Your task to perform on an android device: What's the weather today? Image 0: 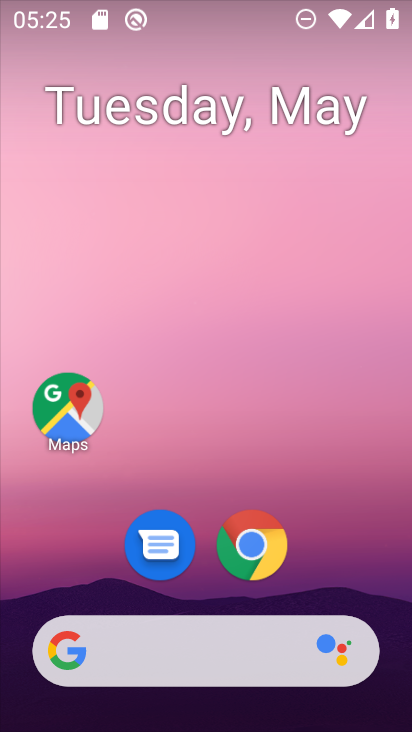
Step 0: drag from (332, 490) to (229, 79)
Your task to perform on an android device: What's the weather today? Image 1: 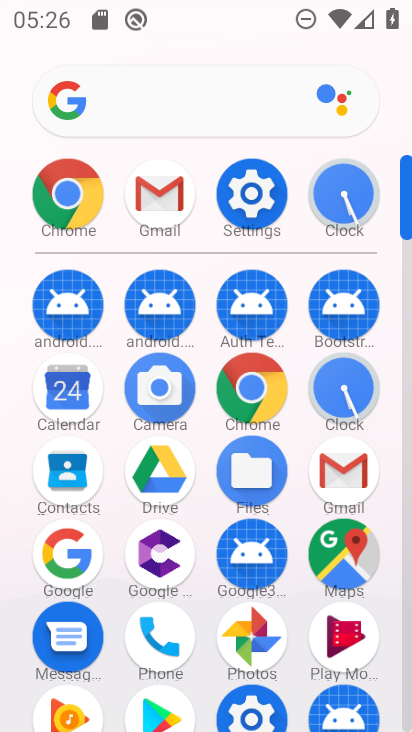
Step 1: drag from (18, 577) to (14, 155)
Your task to perform on an android device: What's the weather today? Image 2: 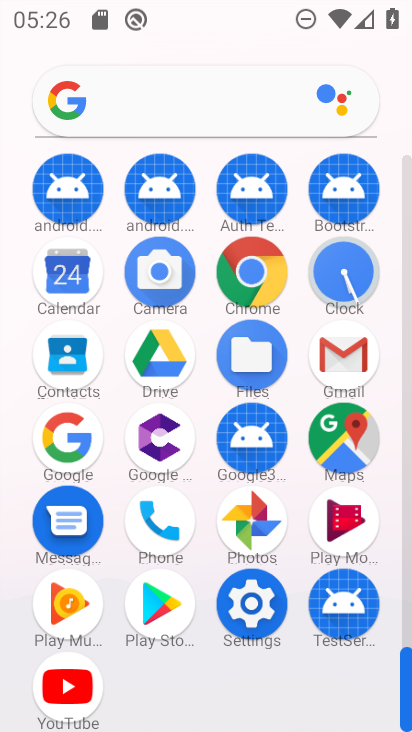
Step 2: drag from (22, 545) to (27, 189)
Your task to perform on an android device: What's the weather today? Image 3: 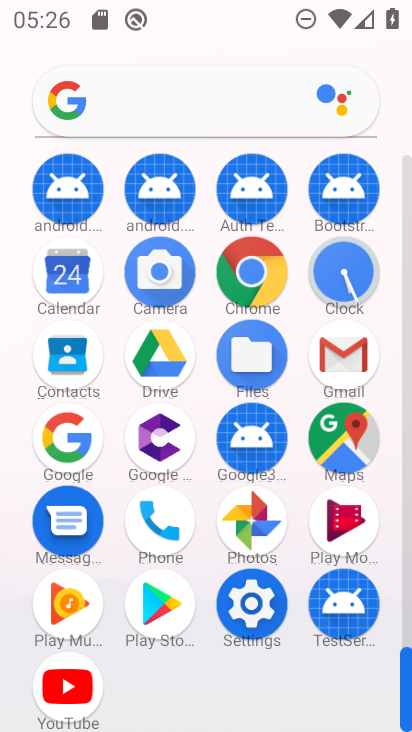
Step 3: drag from (5, 465) to (18, 126)
Your task to perform on an android device: What's the weather today? Image 4: 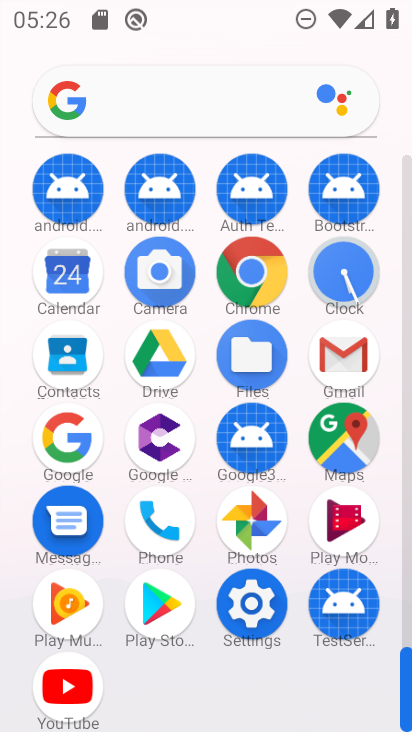
Step 4: drag from (2, 496) to (13, 265)
Your task to perform on an android device: What's the weather today? Image 5: 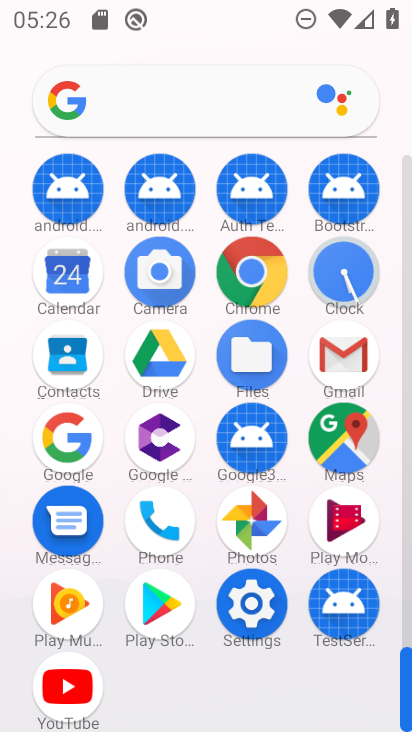
Step 5: drag from (17, 260) to (22, 658)
Your task to perform on an android device: What's the weather today? Image 6: 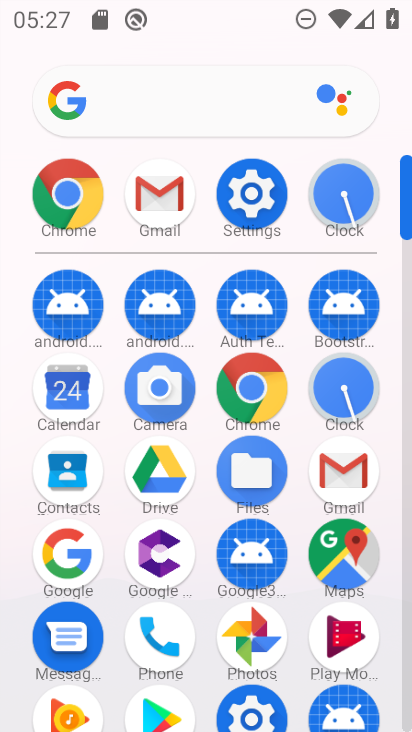
Step 6: drag from (11, 569) to (41, 267)
Your task to perform on an android device: What's the weather today? Image 7: 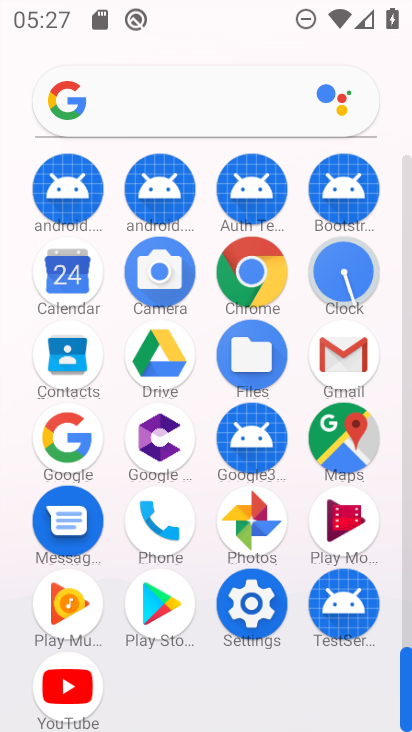
Step 7: click (254, 255)
Your task to perform on an android device: What's the weather today? Image 8: 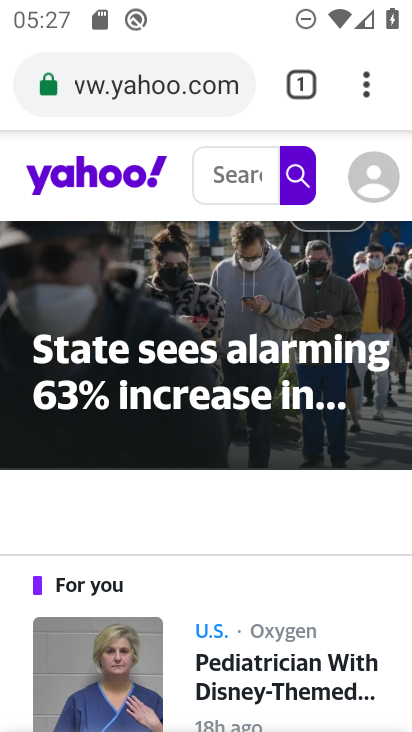
Step 8: click (161, 84)
Your task to perform on an android device: What's the weather today? Image 9: 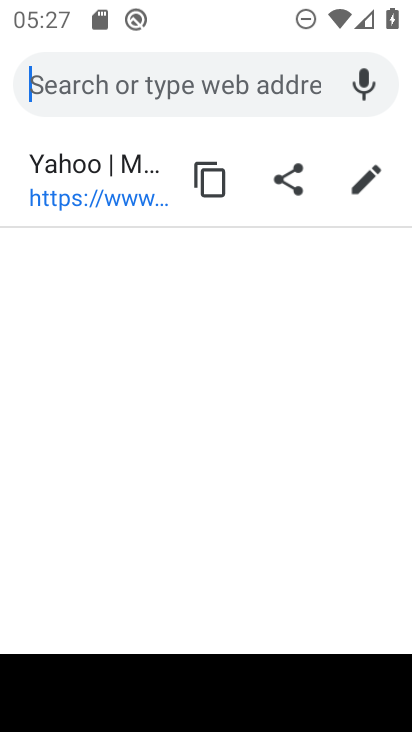
Step 9: type "What's the weather today?"
Your task to perform on an android device: What's the weather today? Image 10: 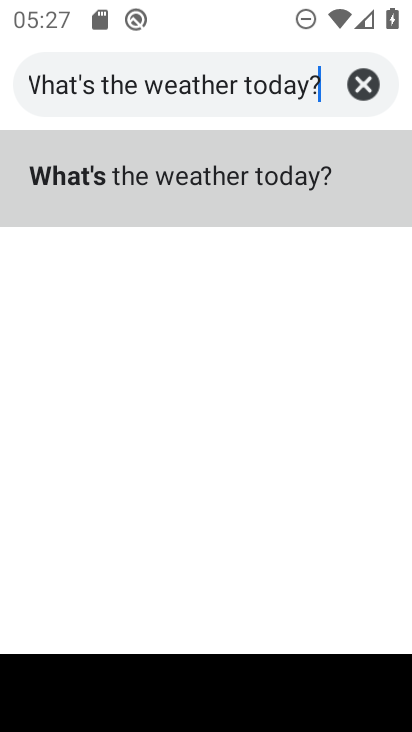
Step 10: click (196, 162)
Your task to perform on an android device: What's the weather today? Image 11: 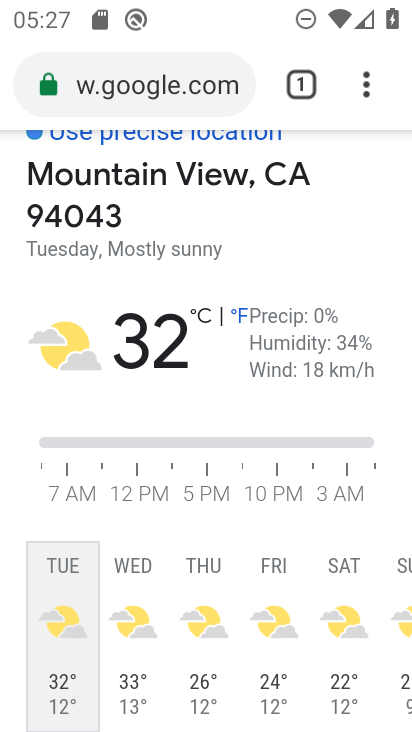
Step 11: task complete